Your task to perform on an android device: Open Maps and search for coffee Image 0: 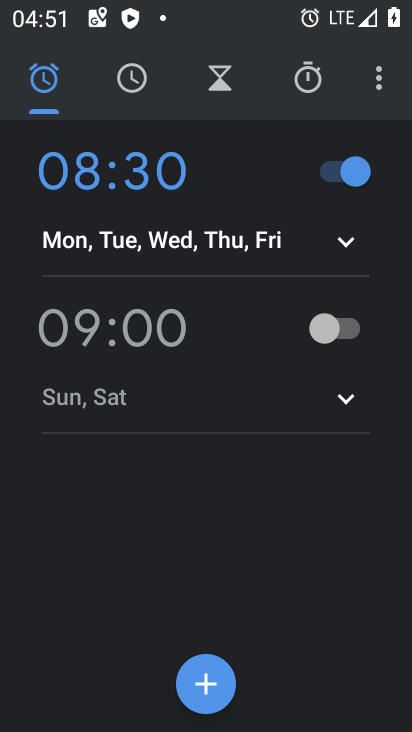
Step 0: press home button
Your task to perform on an android device: Open Maps and search for coffee Image 1: 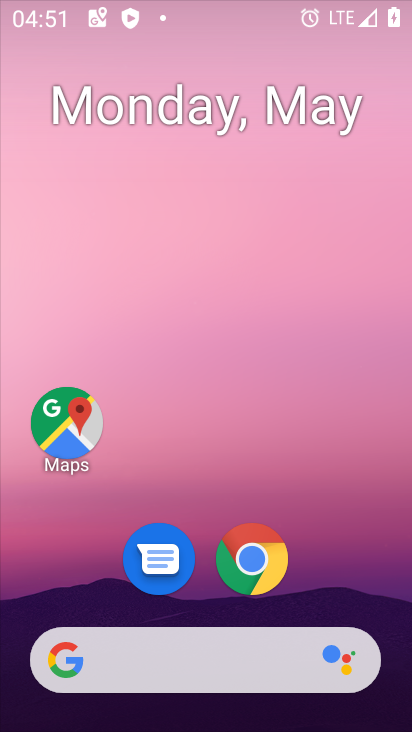
Step 1: drag from (290, 662) to (379, 8)
Your task to perform on an android device: Open Maps and search for coffee Image 2: 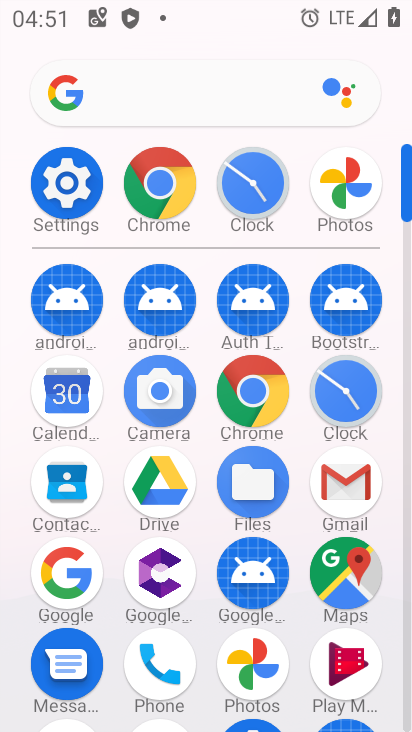
Step 2: click (338, 573)
Your task to perform on an android device: Open Maps and search for coffee Image 3: 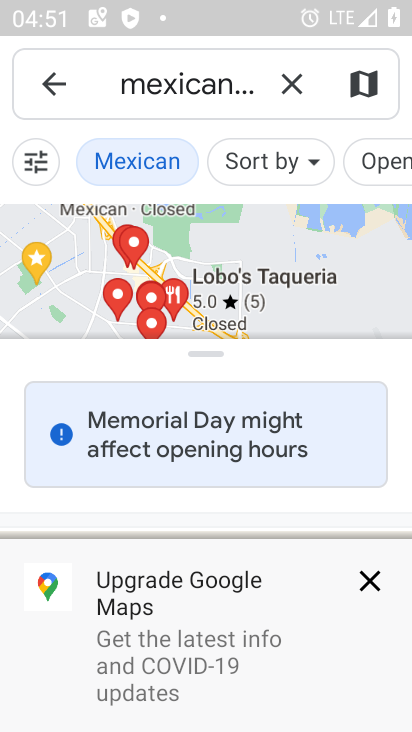
Step 3: click (283, 76)
Your task to perform on an android device: Open Maps and search for coffee Image 4: 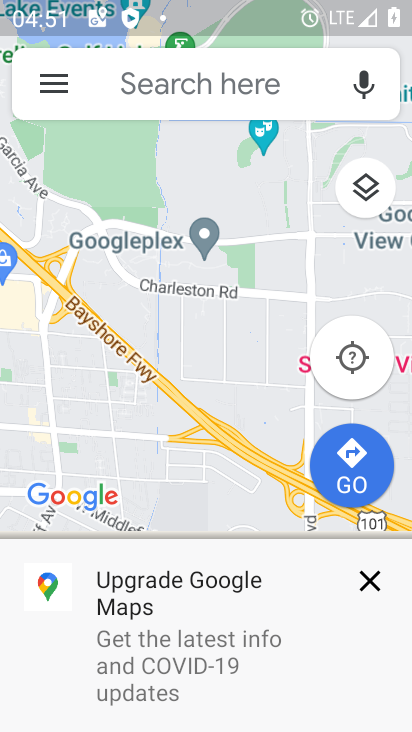
Step 4: click (170, 85)
Your task to perform on an android device: Open Maps and search for coffee Image 5: 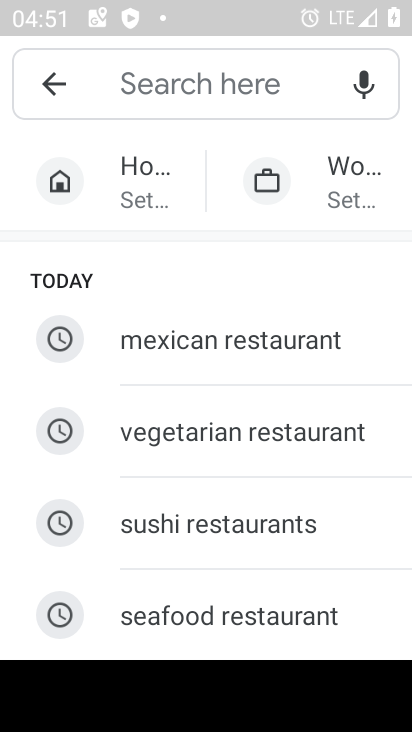
Step 5: type "coffee"
Your task to perform on an android device: Open Maps and search for coffee Image 6: 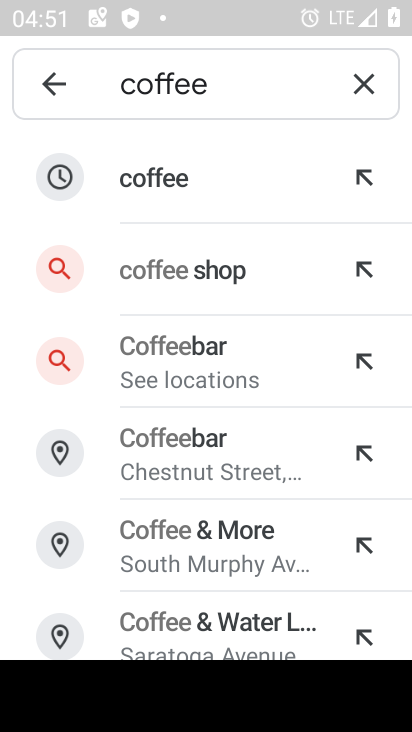
Step 6: click (149, 185)
Your task to perform on an android device: Open Maps and search for coffee Image 7: 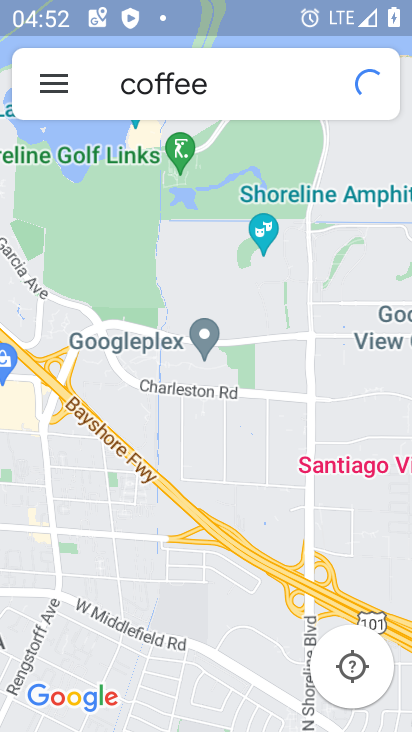
Step 7: task complete